Your task to perform on an android device: toggle location history Image 0: 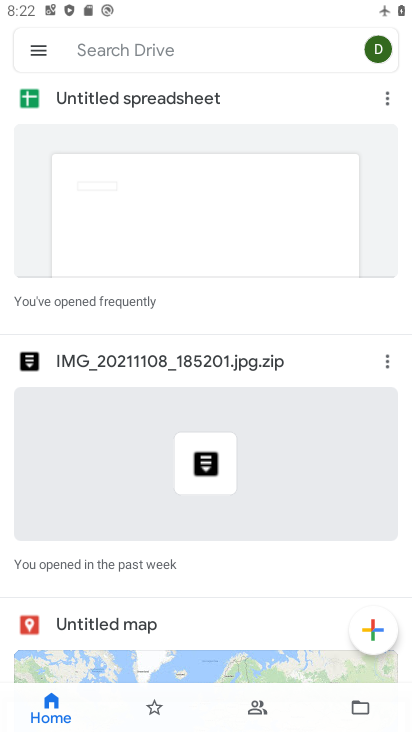
Step 0: press home button
Your task to perform on an android device: toggle location history Image 1: 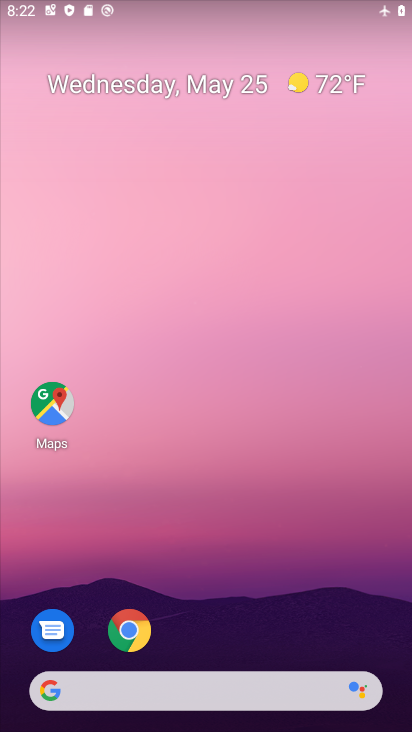
Step 1: drag from (220, 655) to (217, 182)
Your task to perform on an android device: toggle location history Image 2: 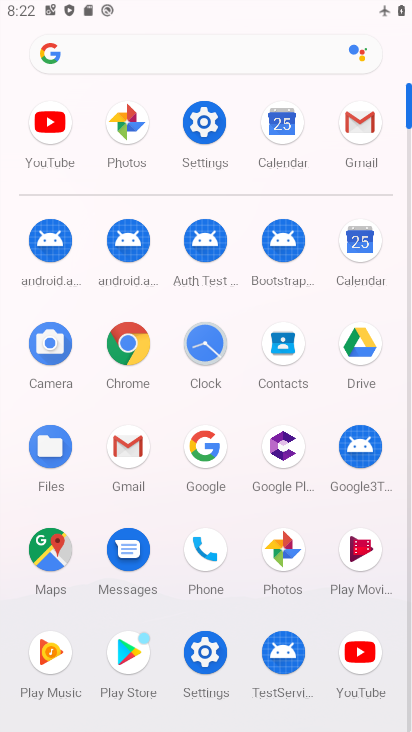
Step 2: click (199, 138)
Your task to perform on an android device: toggle location history Image 3: 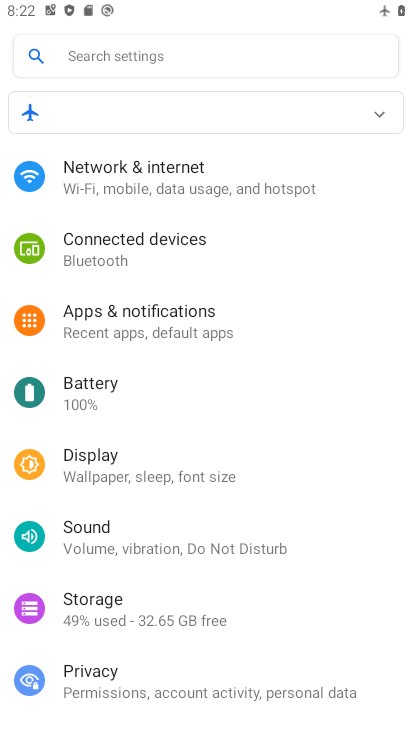
Step 3: drag from (170, 679) to (220, 340)
Your task to perform on an android device: toggle location history Image 4: 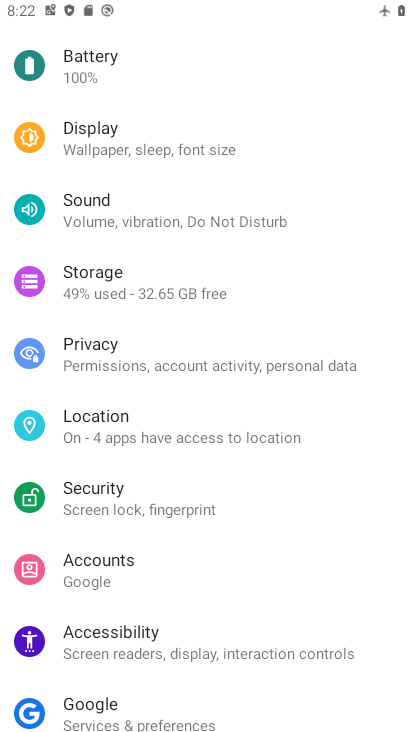
Step 4: click (146, 443)
Your task to perform on an android device: toggle location history Image 5: 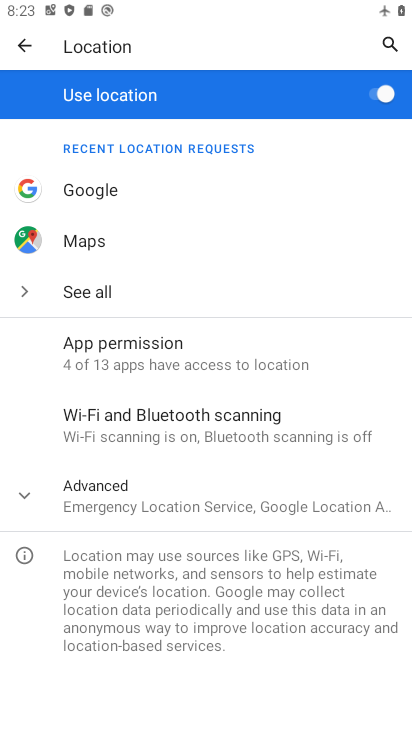
Step 5: click (190, 510)
Your task to perform on an android device: toggle location history Image 6: 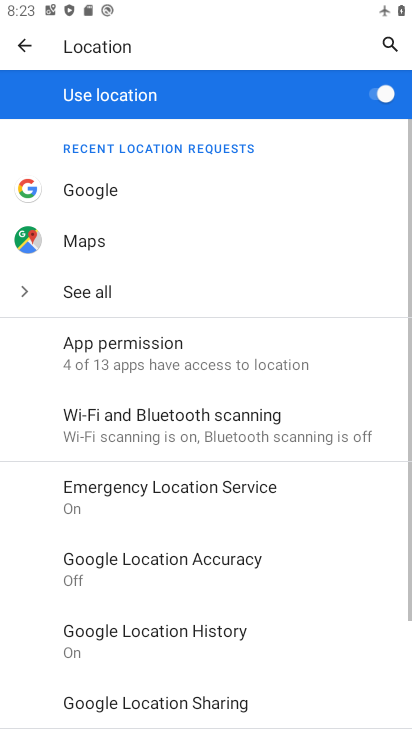
Step 6: drag from (260, 650) to (266, 528)
Your task to perform on an android device: toggle location history Image 7: 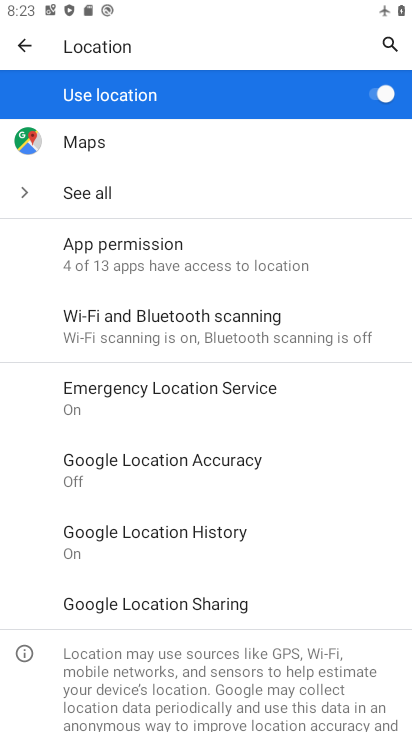
Step 7: click (253, 521)
Your task to perform on an android device: toggle location history Image 8: 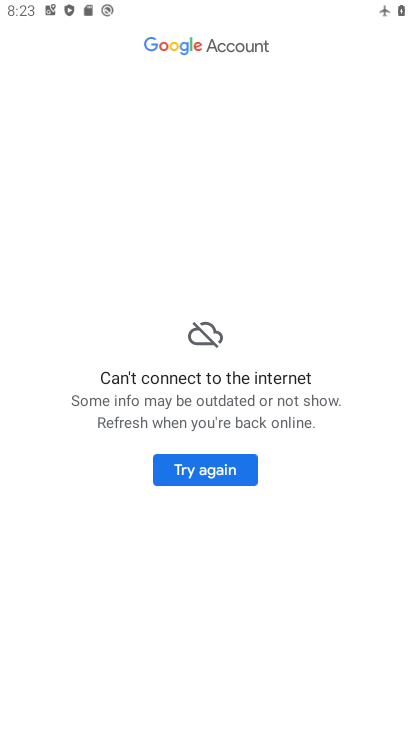
Step 8: task complete